Your task to perform on an android device: set an alarm Image 0: 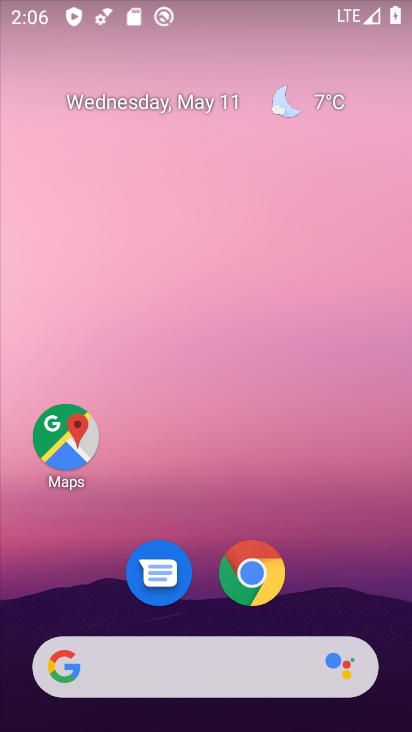
Step 0: drag from (62, 629) to (188, 163)
Your task to perform on an android device: set an alarm Image 1: 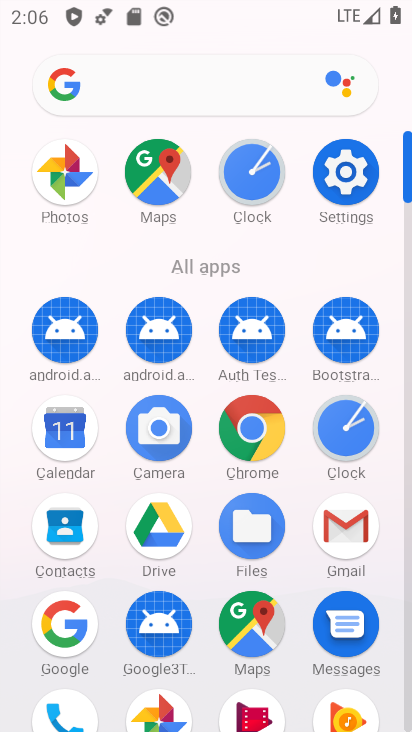
Step 1: click (360, 433)
Your task to perform on an android device: set an alarm Image 2: 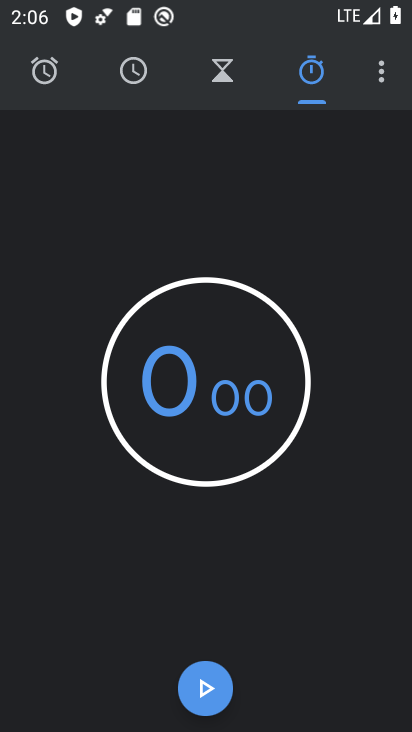
Step 2: click (58, 106)
Your task to perform on an android device: set an alarm Image 3: 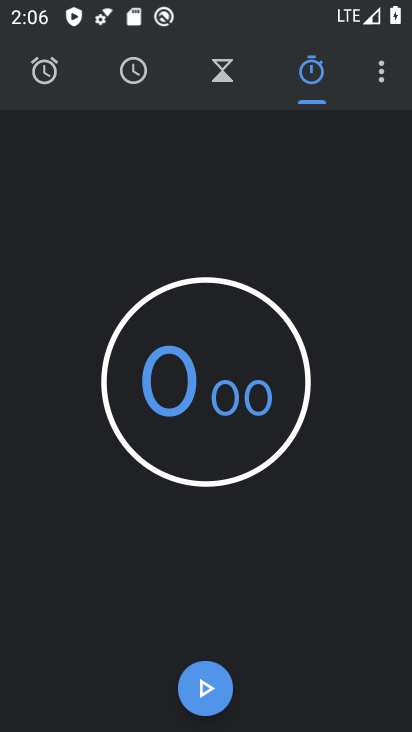
Step 3: click (56, 91)
Your task to perform on an android device: set an alarm Image 4: 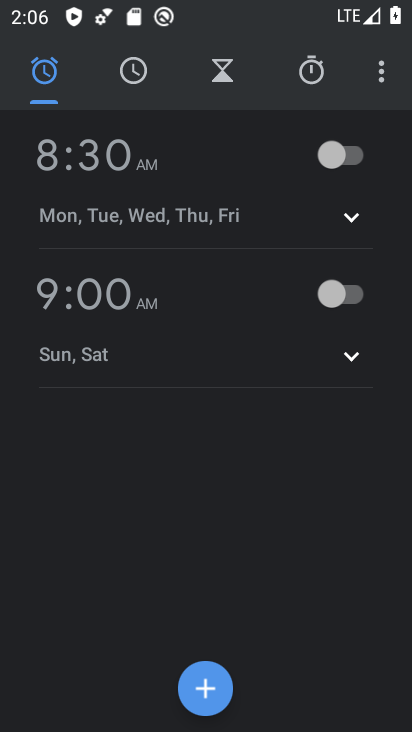
Step 4: click (211, 682)
Your task to perform on an android device: set an alarm Image 5: 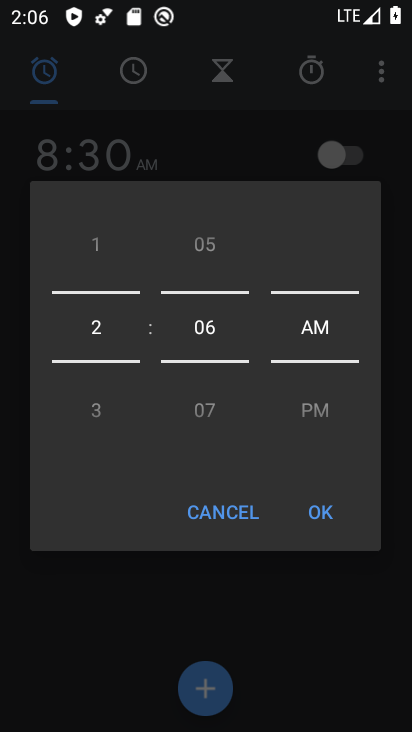
Step 5: click (104, 406)
Your task to perform on an android device: set an alarm Image 6: 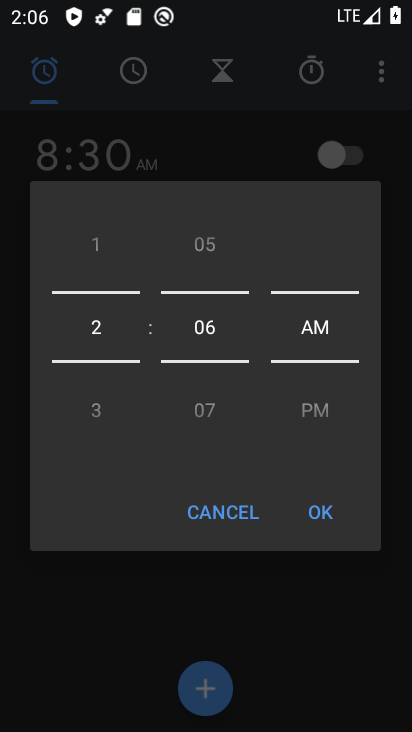
Step 6: drag from (103, 407) to (120, 269)
Your task to perform on an android device: set an alarm Image 7: 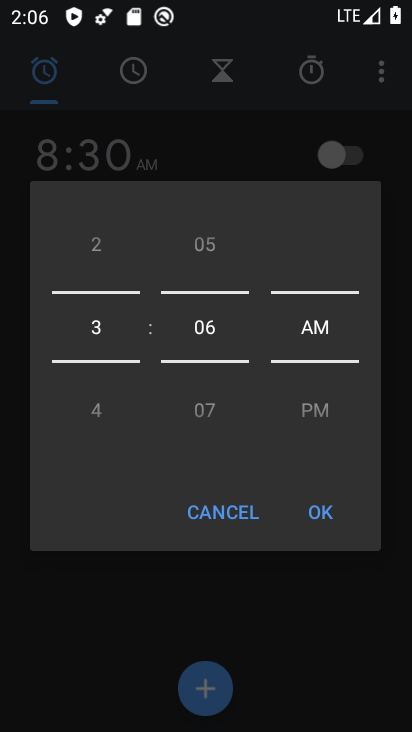
Step 7: click (320, 512)
Your task to perform on an android device: set an alarm Image 8: 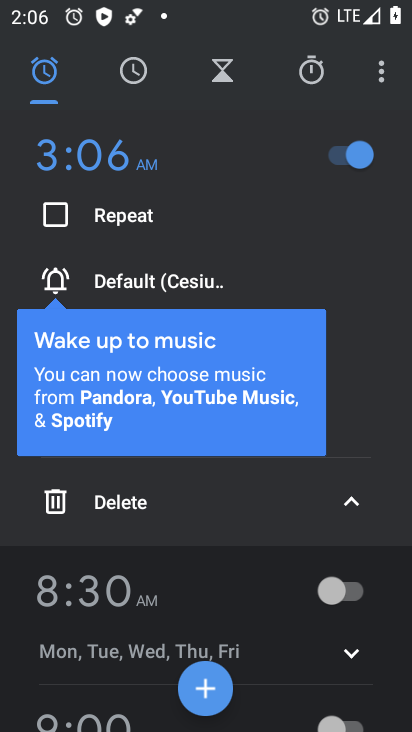
Step 8: task complete